Your task to perform on an android device: Go to eBay Image 0: 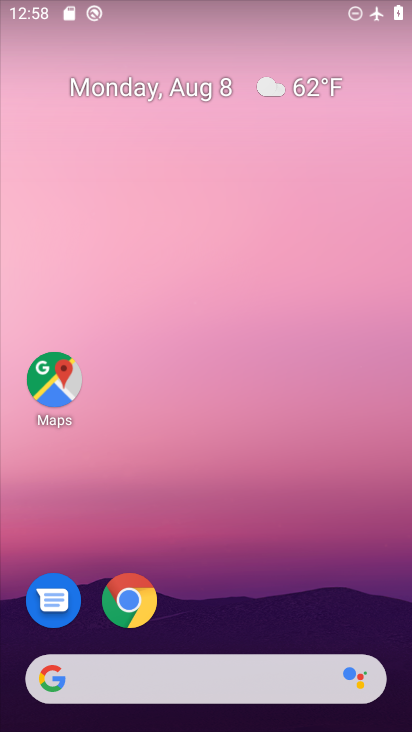
Step 0: click (125, 605)
Your task to perform on an android device: Go to eBay Image 1: 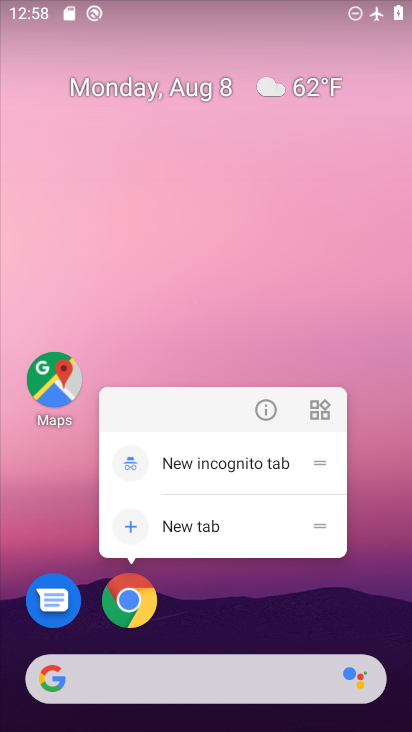
Step 1: click (148, 614)
Your task to perform on an android device: Go to eBay Image 2: 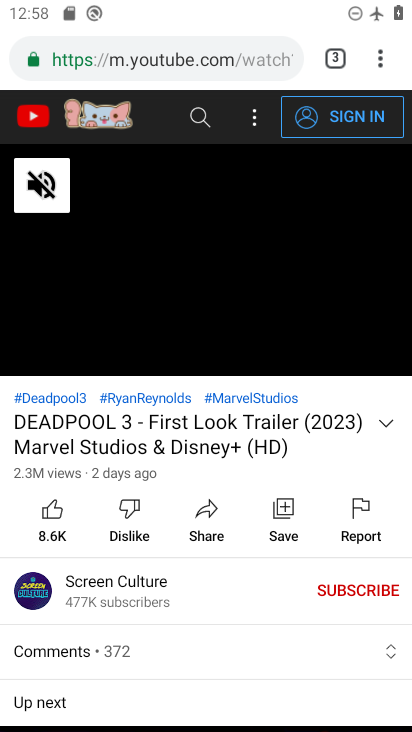
Step 2: click (341, 57)
Your task to perform on an android device: Go to eBay Image 3: 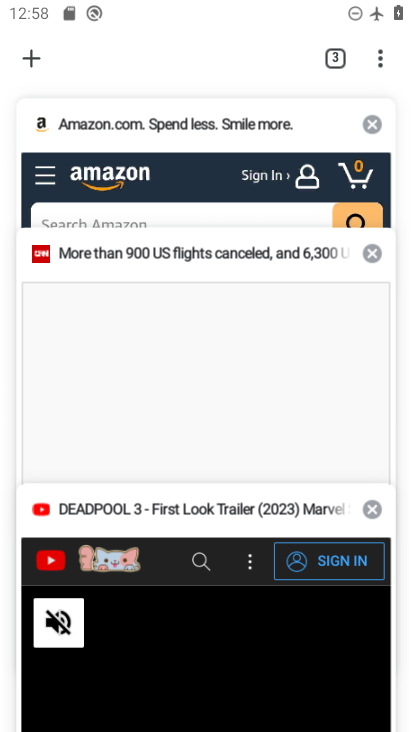
Step 3: click (41, 53)
Your task to perform on an android device: Go to eBay Image 4: 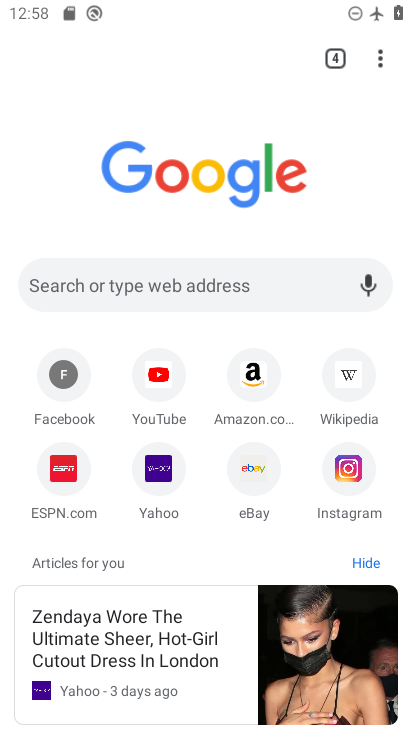
Step 4: click (236, 462)
Your task to perform on an android device: Go to eBay Image 5: 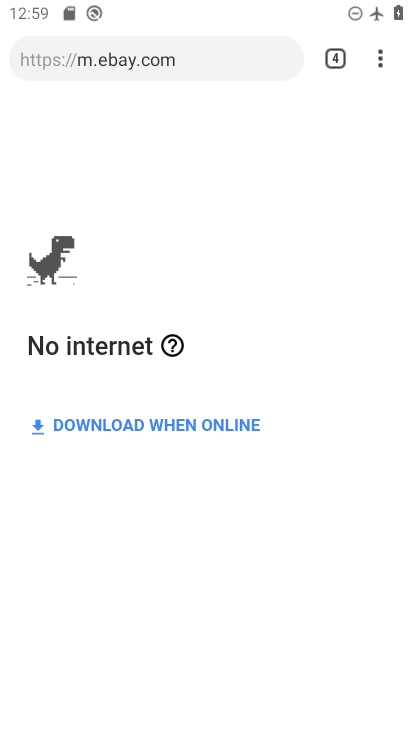
Step 5: task complete